Your task to perform on an android device: Go to Amazon Image 0: 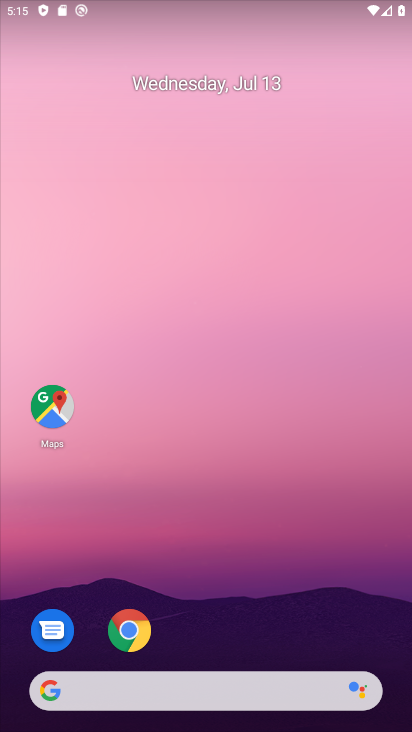
Step 0: click (254, 63)
Your task to perform on an android device: Go to Amazon Image 1: 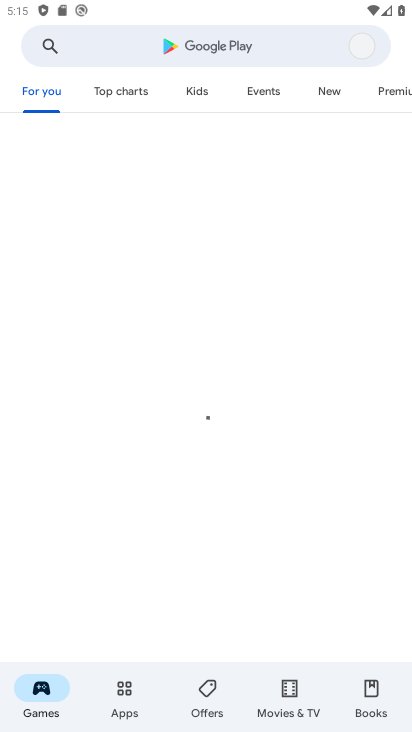
Step 1: press home button
Your task to perform on an android device: Go to Amazon Image 2: 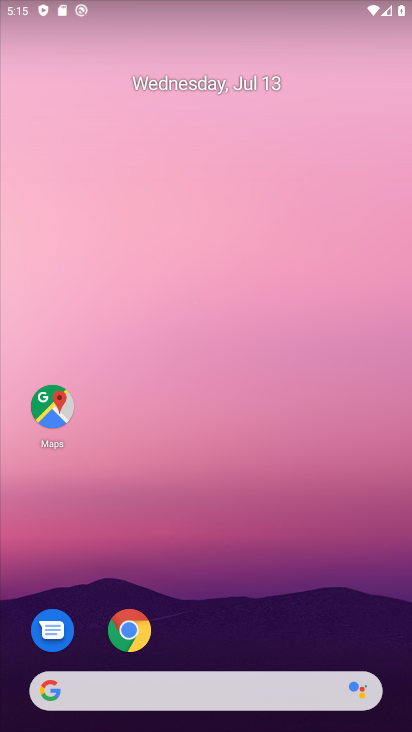
Step 2: drag from (267, 628) to (316, 25)
Your task to perform on an android device: Go to Amazon Image 3: 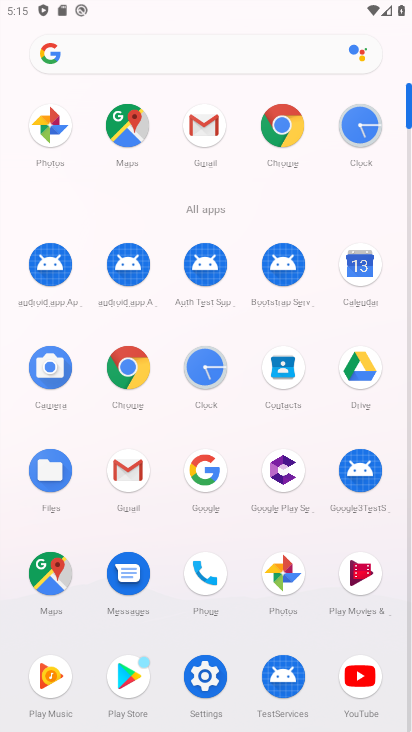
Step 3: click (132, 358)
Your task to perform on an android device: Go to Amazon Image 4: 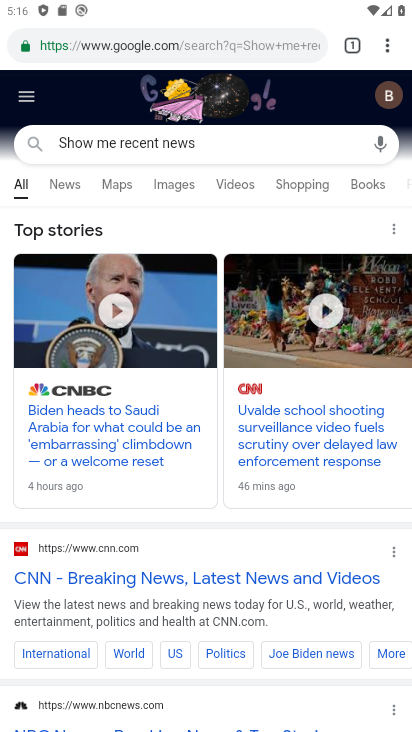
Step 4: click (393, 51)
Your task to perform on an android device: Go to Amazon Image 5: 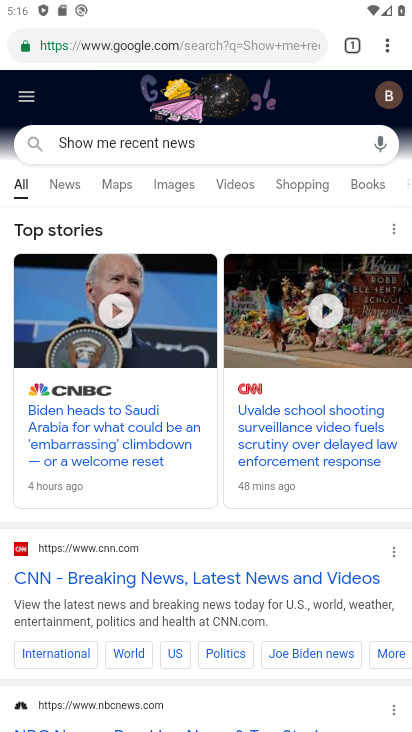
Step 5: drag from (392, 32) to (218, 139)
Your task to perform on an android device: Go to Amazon Image 6: 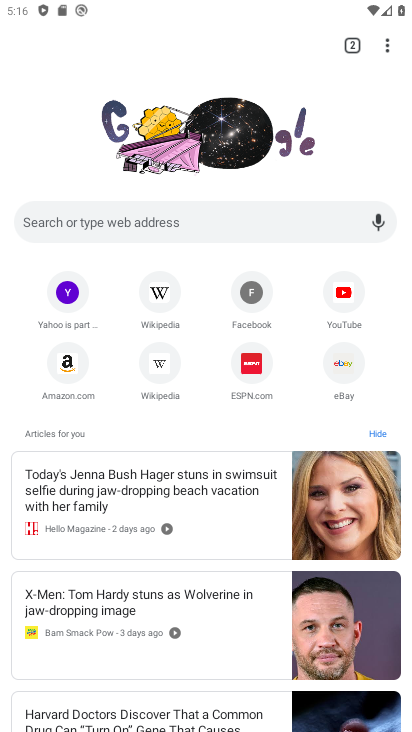
Step 6: click (69, 365)
Your task to perform on an android device: Go to Amazon Image 7: 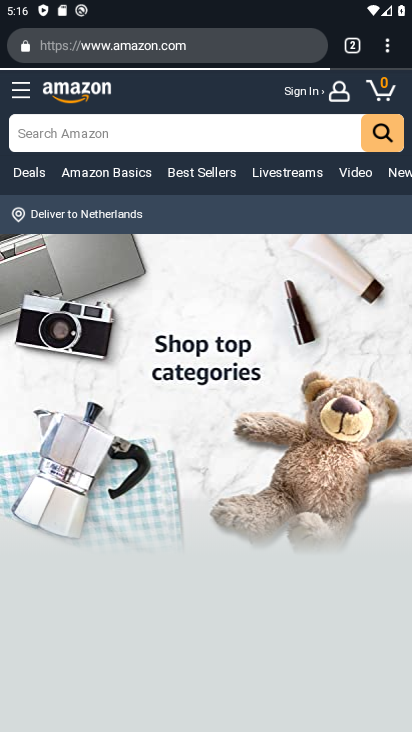
Step 7: task complete